Your task to perform on an android device: Open settings on Google Maps Image 0: 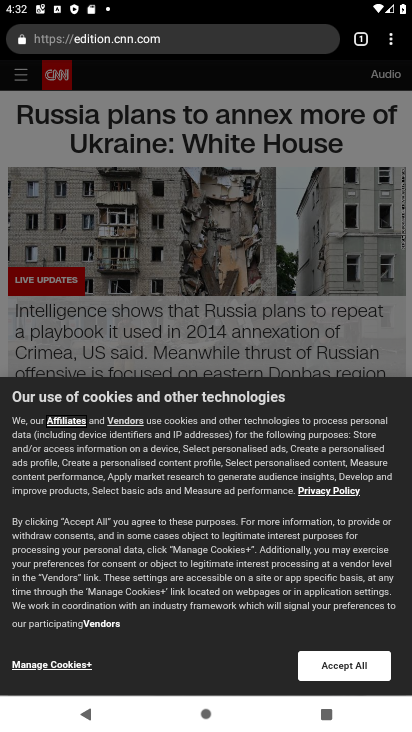
Step 0: press home button
Your task to perform on an android device: Open settings on Google Maps Image 1: 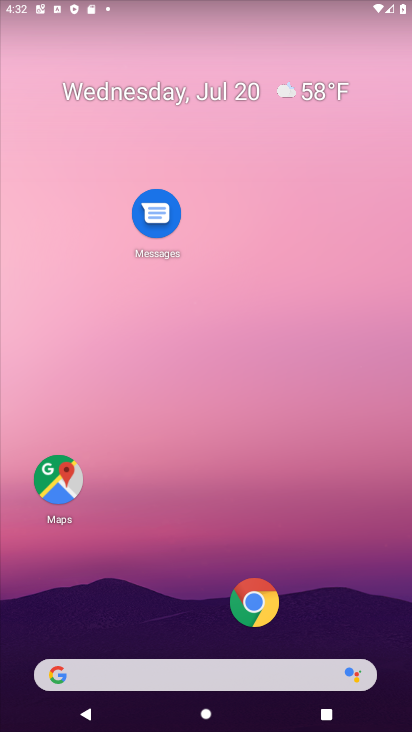
Step 1: drag from (188, 624) to (188, 126)
Your task to perform on an android device: Open settings on Google Maps Image 2: 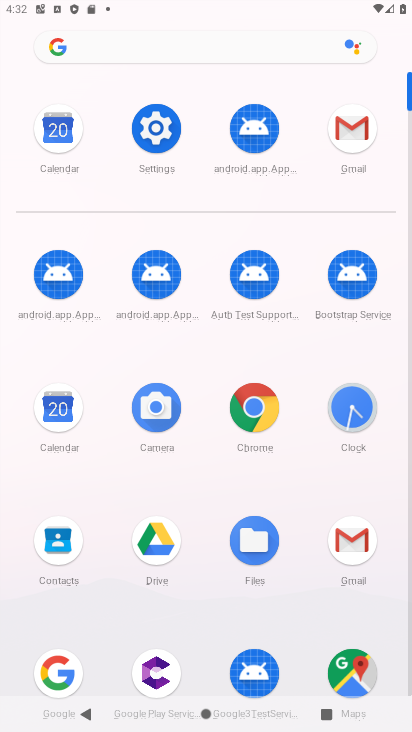
Step 2: click (352, 667)
Your task to perform on an android device: Open settings on Google Maps Image 3: 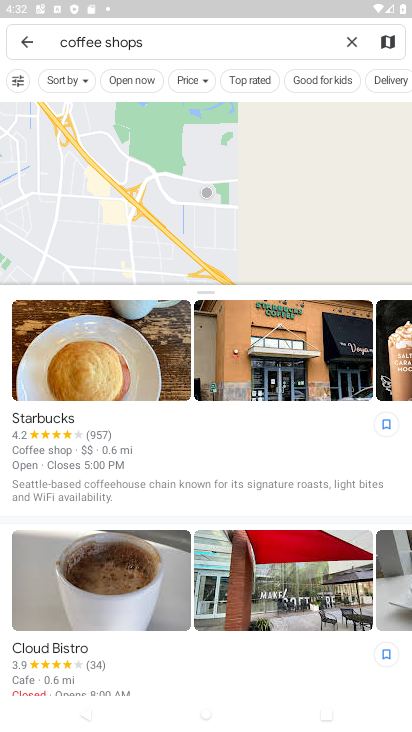
Step 3: task complete